Your task to perform on an android device: turn pop-ups on in chrome Image 0: 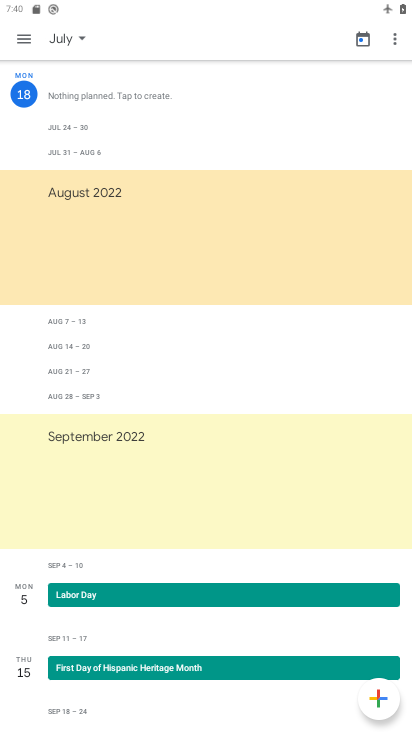
Step 0: press home button
Your task to perform on an android device: turn pop-ups on in chrome Image 1: 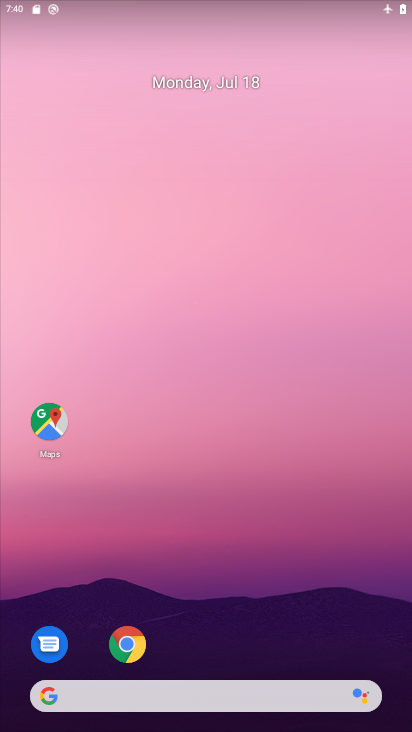
Step 1: drag from (365, 577) to (375, 219)
Your task to perform on an android device: turn pop-ups on in chrome Image 2: 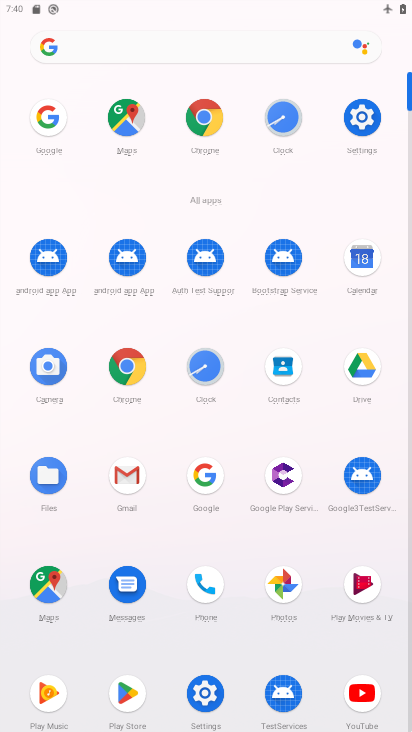
Step 2: click (133, 366)
Your task to perform on an android device: turn pop-ups on in chrome Image 3: 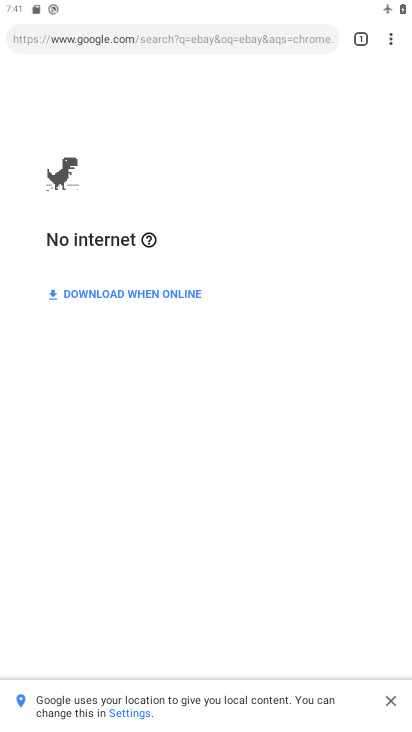
Step 3: click (390, 39)
Your task to perform on an android device: turn pop-ups on in chrome Image 4: 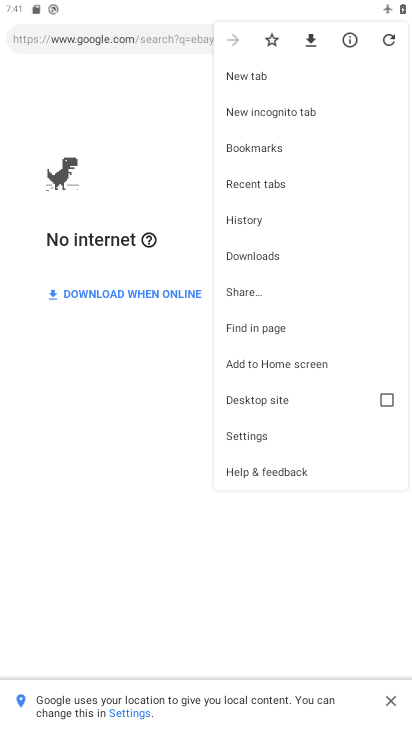
Step 4: click (264, 439)
Your task to perform on an android device: turn pop-ups on in chrome Image 5: 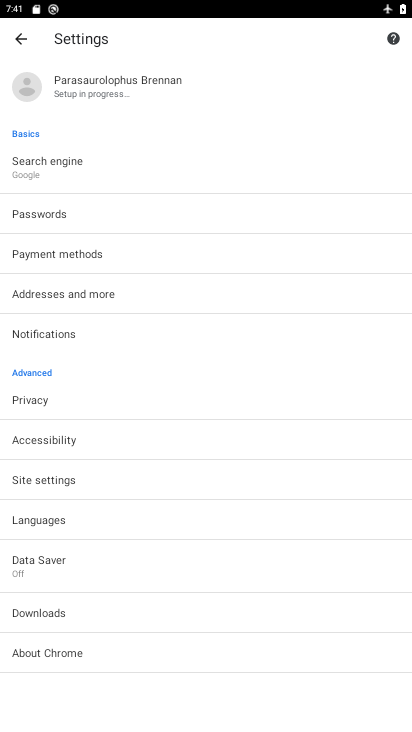
Step 5: drag from (352, 601) to (354, 492)
Your task to perform on an android device: turn pop-ups on in chrome Image 6: 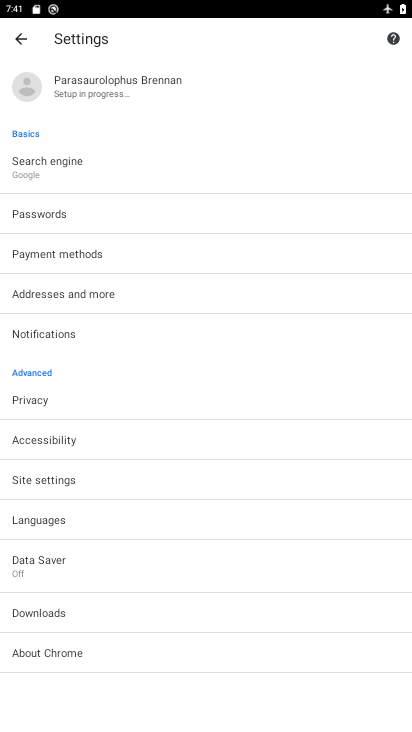
Step 6: click (331, 468)
Your task to perform on an android device: turn pop-ups on in chrome Image 7: 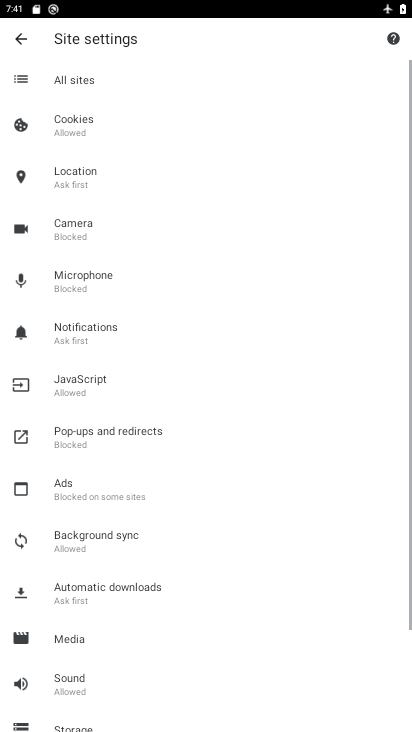
Step 7: drag from (329, 519) to (327, 480)
Your task to perform on an android device: turn pop-ups on in chrome Image 8: 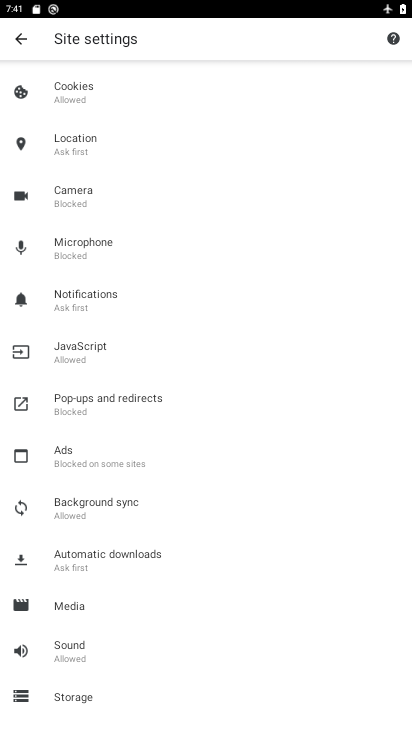
Step 8: drag from (342, 535) to (343, 496)
Your task to perform on an android device: turn pop-ups on in chrome Image 9: 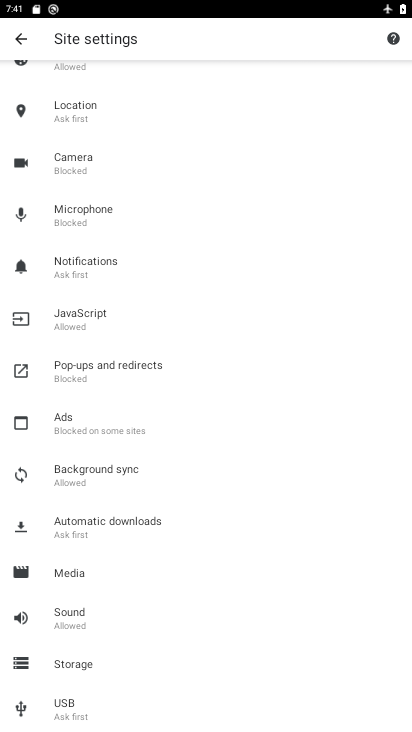
Step 9: drag from (344, 543) to (345, 487)
Your task to perform on an android device: turn pop-ups on in chrome Image 10: 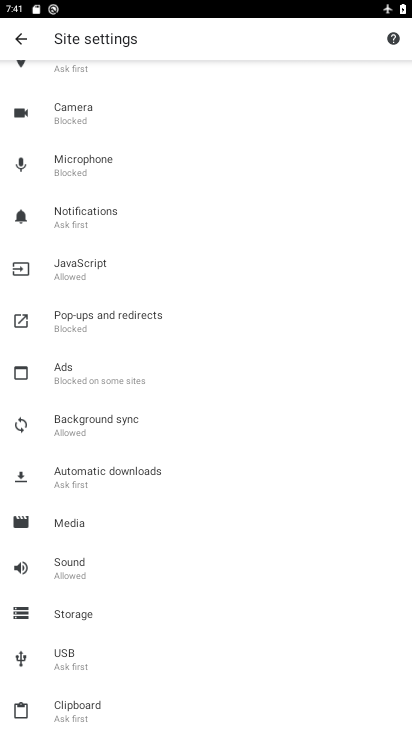
Step 10: drag from (341, 549) to (342, 488)
Your task to perform on an android device: turn pop-ups on in chrome Image 11: 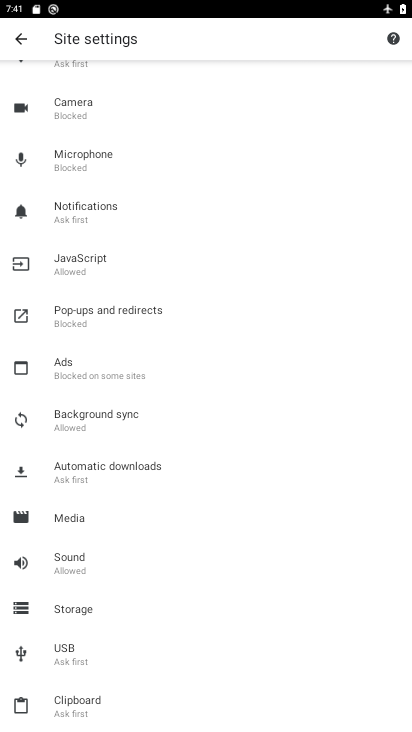
Step 11: drag from (342, 367) to (334, 443)
Your task to perform on an android device: turn pop-ups on in chrome Image 12: 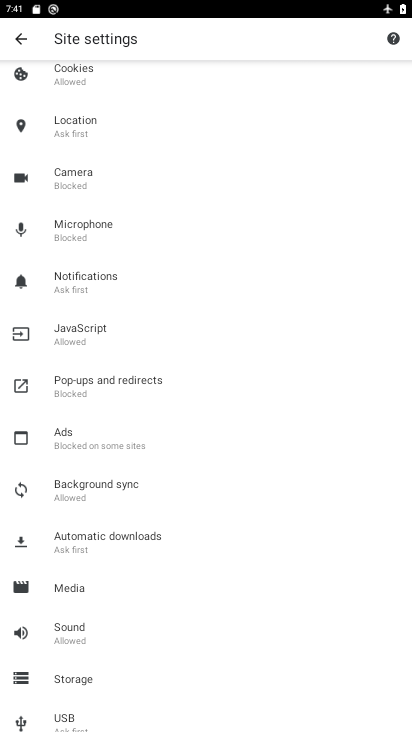
Step 12: drag from (334, 367) to (335, 491)
Your task to perform on an android device: turn pop-ups on in chrome Image 13: 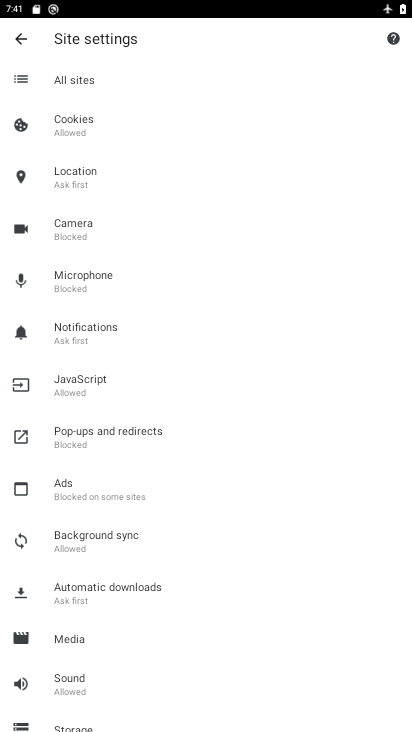
Step 13: drag from (330, 371) to (330, 438)
Your task to perform on an android device: turn pop-ups on in chrome Image 14: 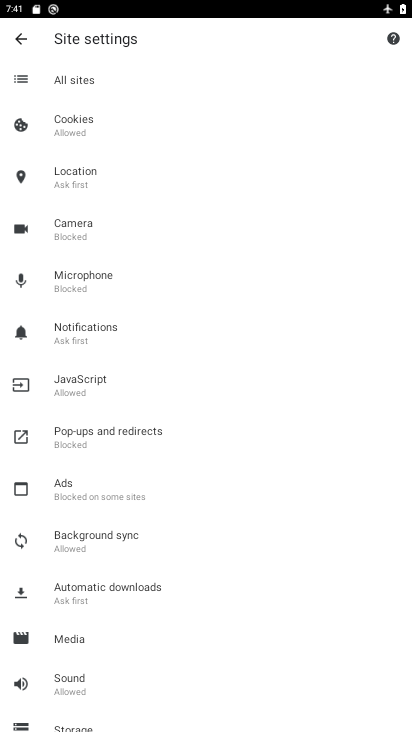
Step 14: click (203, 450)
Your task to perform on an android device: turn pop-ups on in chrome Image 15: 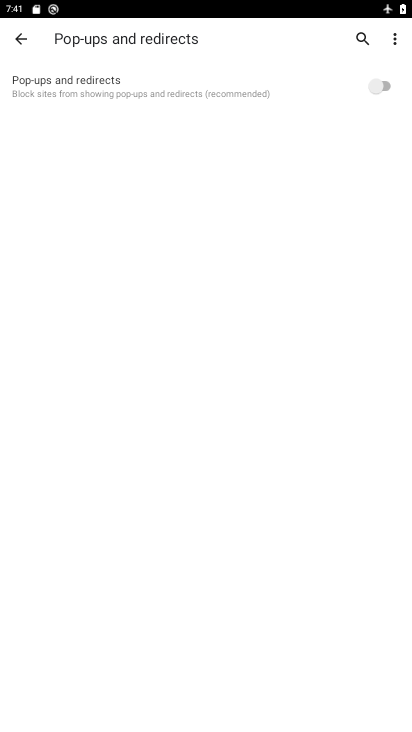
Step 15: click (380, 95)
Your task to perform on an android device: turn pop-ups on in chrome Image 16: 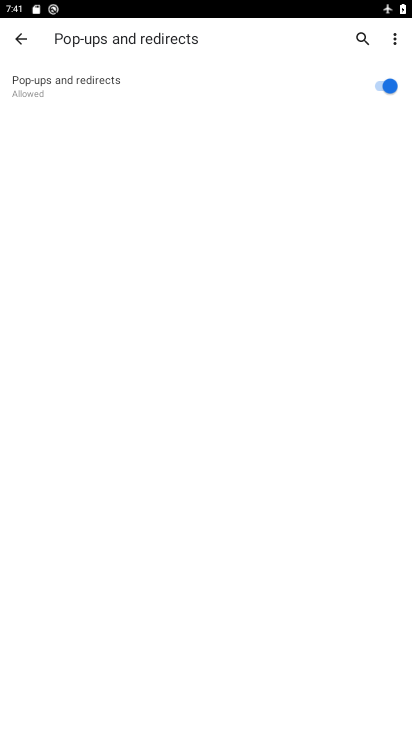
Step 16: task complete